Your task to perform on an android device: Open calendar and show me the first week of next month Image 0: 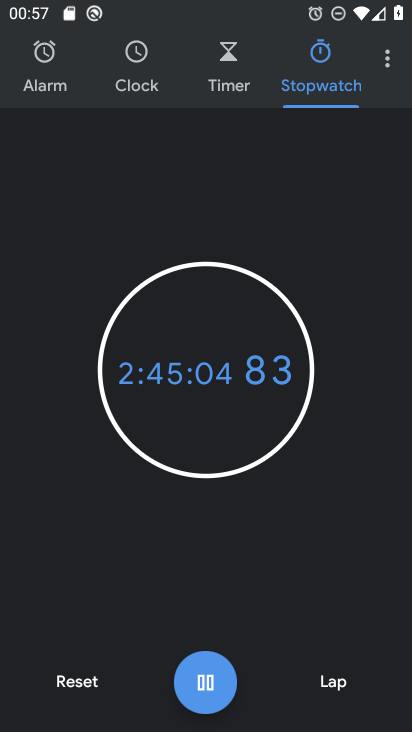
Step 0: press home button
Your task to perform on an android device: Open calendar and show me the first week of next month Image 1: 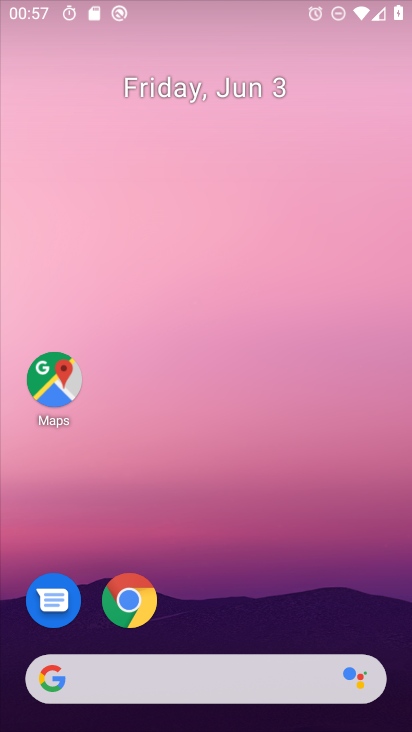
Step 1: drag from (219, 616) to (256, 121)
Your task to perform on an android device: Open calendar and show me the first week of next month Image 2: 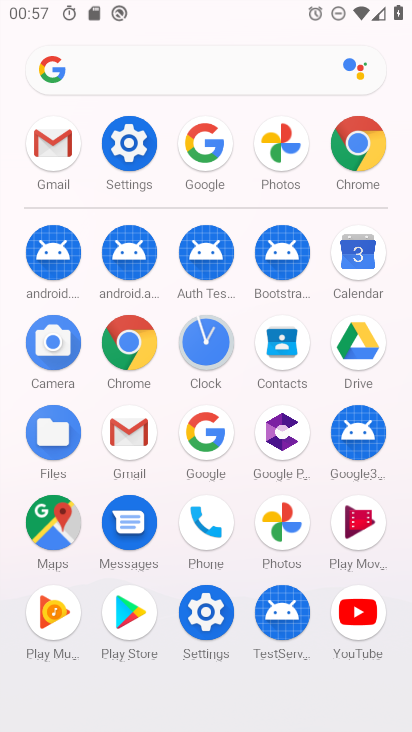
Step 2: click (365, 252)
Your task to perform on an android device: Open calendar and show me the first week of next month Image 3: 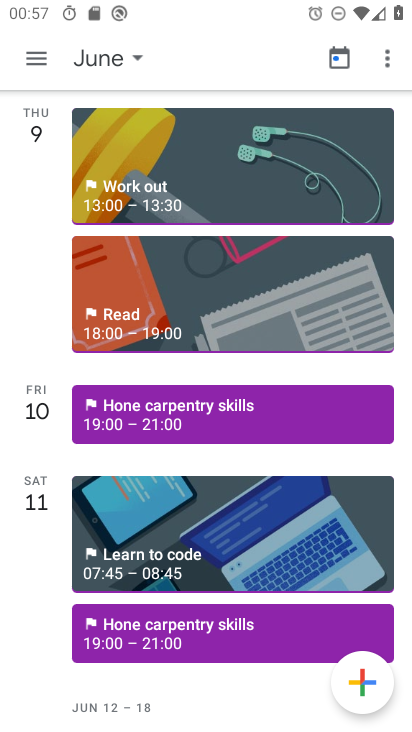
Step 3: click (127, 58)
Your task to perform on an android device: Open calendar and show me the first week of next month Image 4: 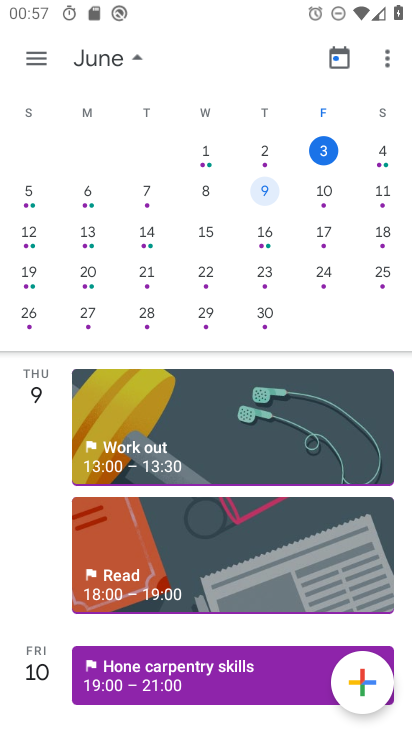
Step 4: drag from (363, 304) to (20, 250)
Your task to perform on an android device: Open calendar and show me the first week of next month Image 5: 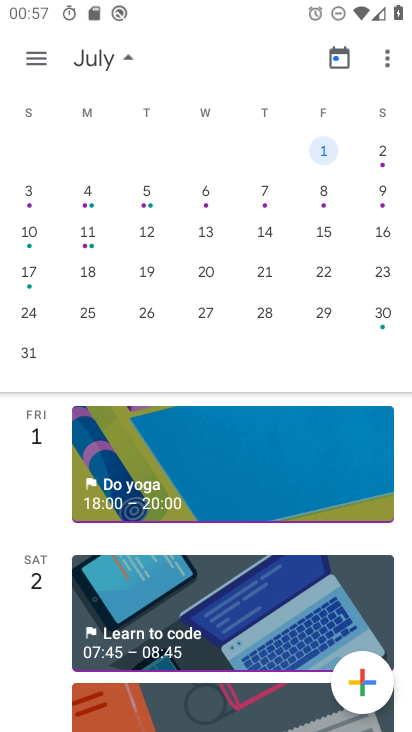
Step 5: click (83, 195)
Your task to perform on an android device: Open calendar and show me the first week of next month Image 6: 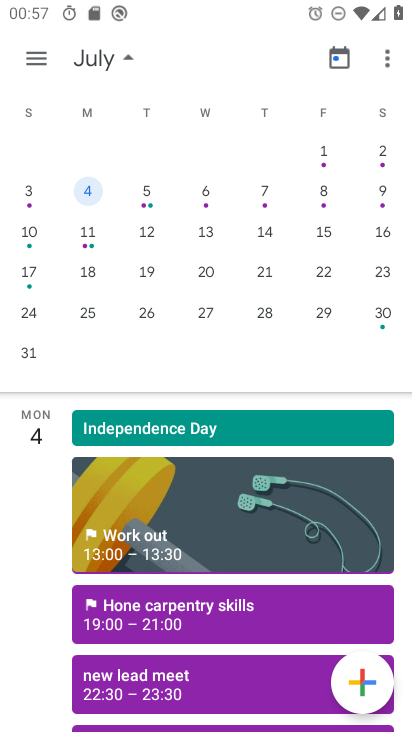
Step 6: click (47, 71)
Your task to perform on an android device: Open calendar and show me the first week of next month Image 7: 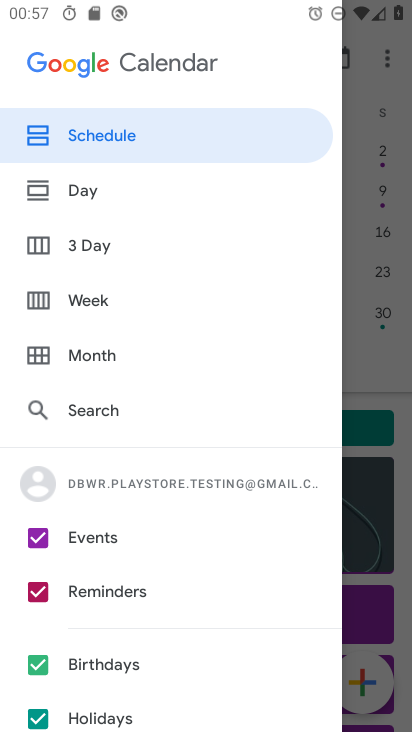
Step 7: click (93, 302)
Your task to perform on an android device: Open calendar and show me the first week of next month Image 8: 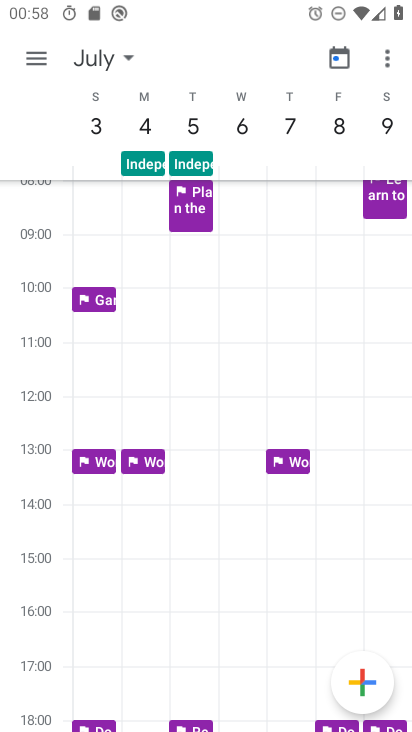
Step 8: task complete